Your task to perform on an android device: see sites visited before in the chrome app Image 0: 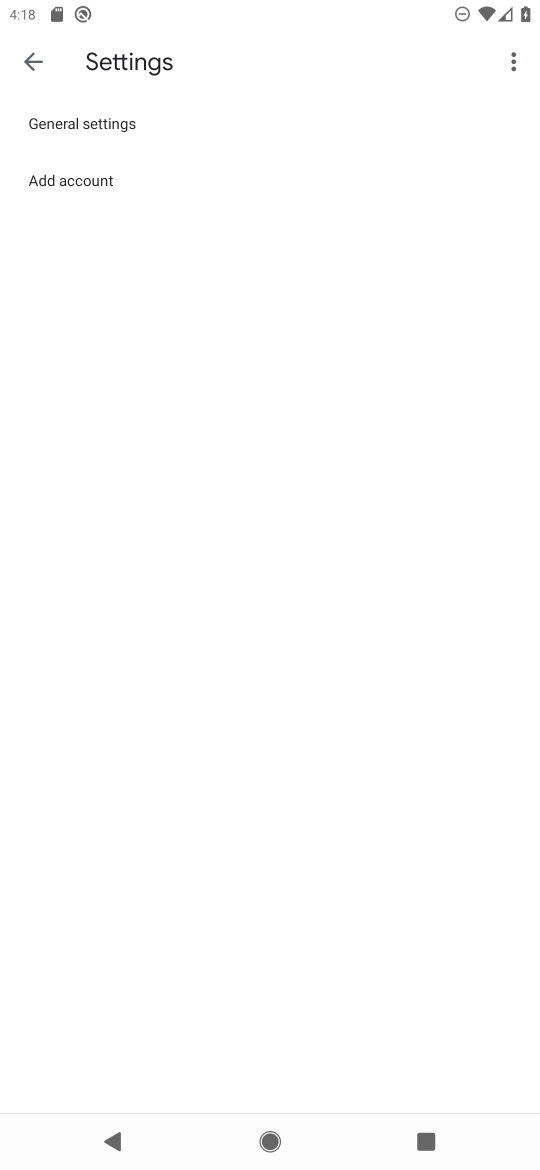
Step 0: press home button
Your task to perform on an android device: see sites visited before in the chrome app Image 1: 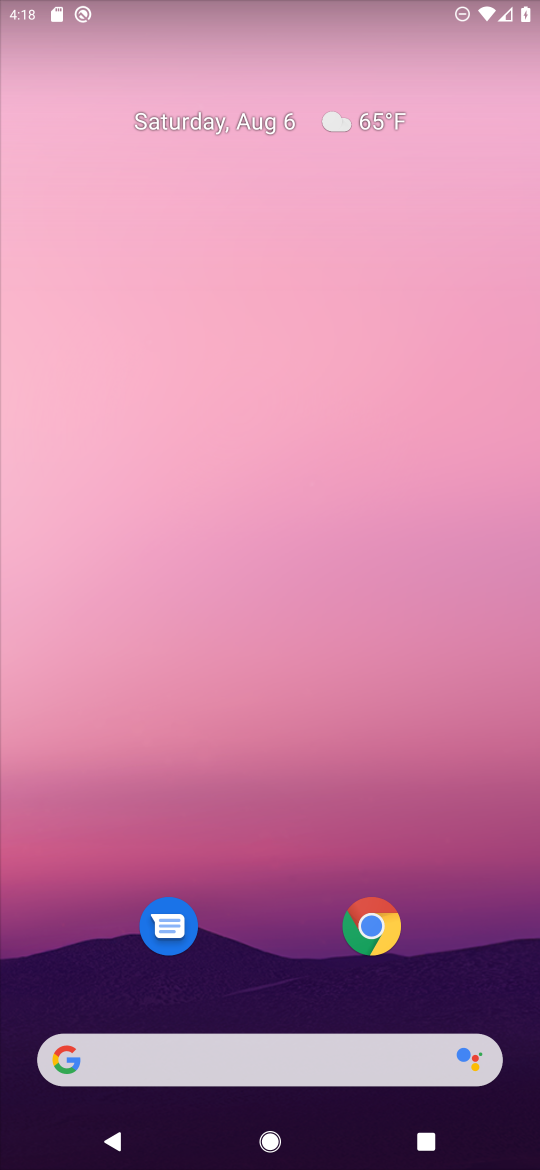
Step 1: click (361, 957)
Your task to perform on an android device: see sites visited before in the chrome app Image 2: 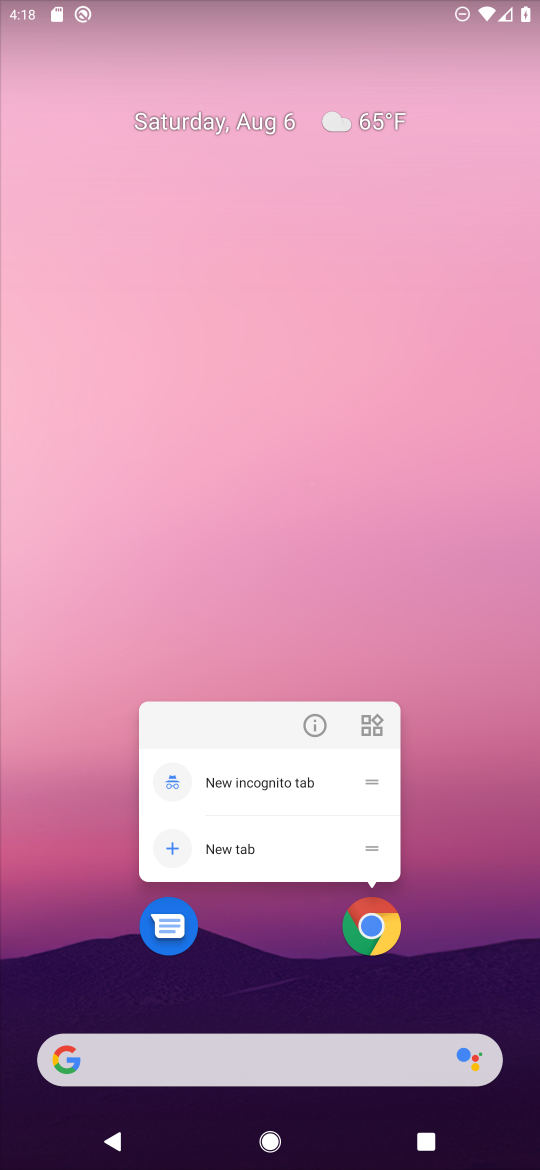
Step 2: click (361, 939)
Your task to perform on an android device: see sites visited before in the chrome app Image 3: 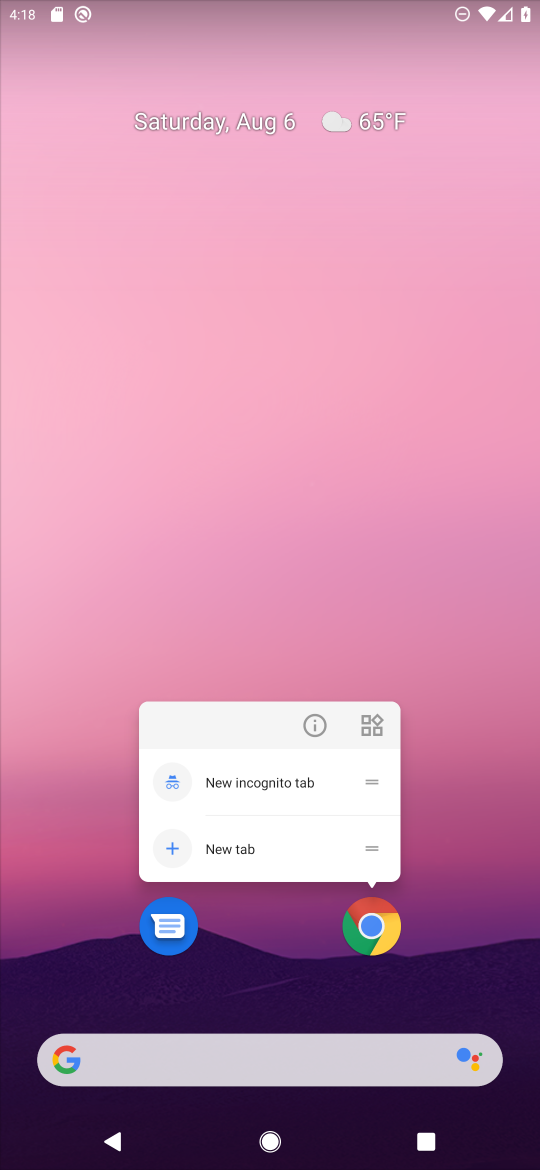
Step 3: click (373, 919)
Your task to perform on an android device: see sites visited before in the chrome app Image 4: 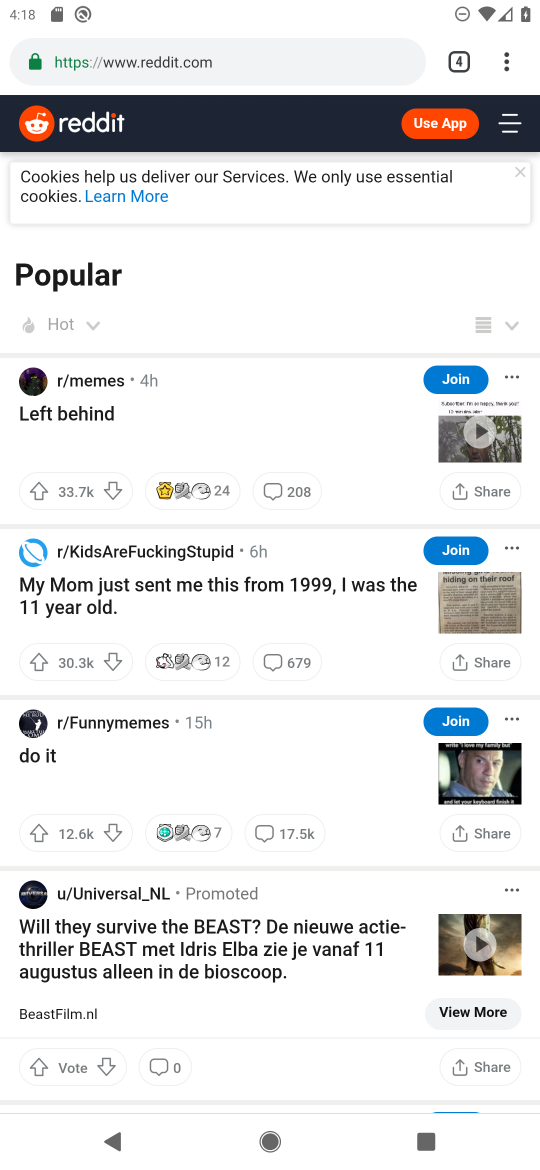
Step 4: click (502, 65)
Your task to perform on an android device: see sites visited before in the chrome app Image 5: 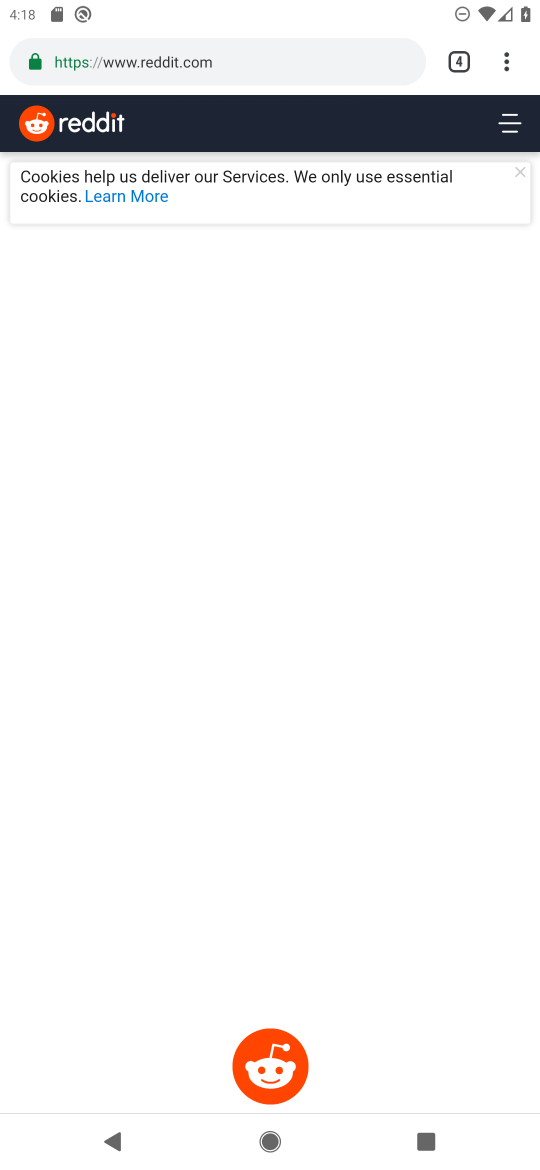
Step 5: click (502, 65)
Your task to perform on an android device: see sites visited before in the chrome app Image 6: 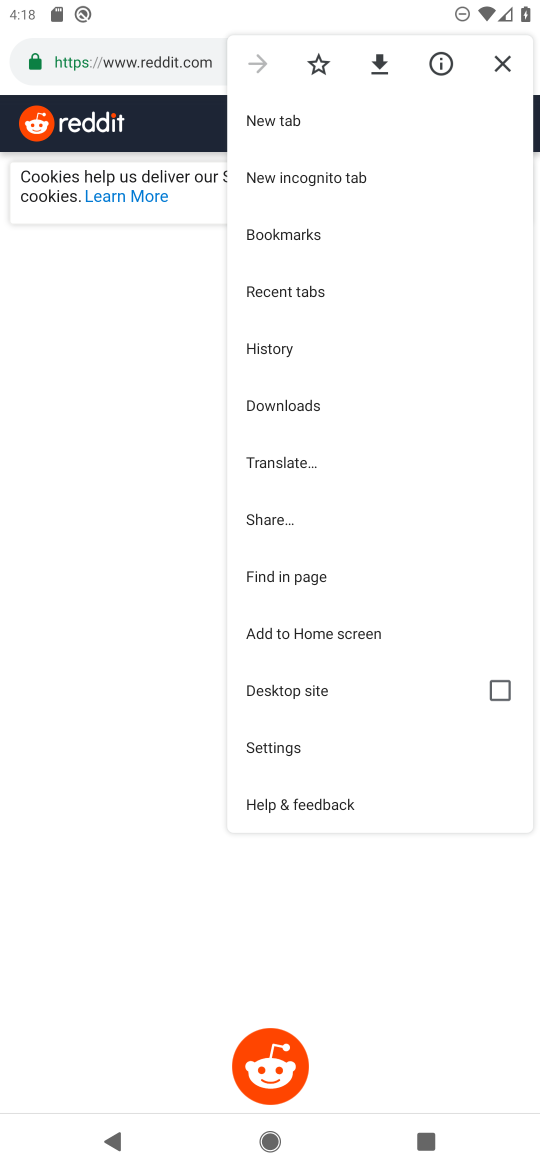
Step 6: click (343, 302)
Your task to perform on an android device: see sites visited before in the chrome app Image 7: 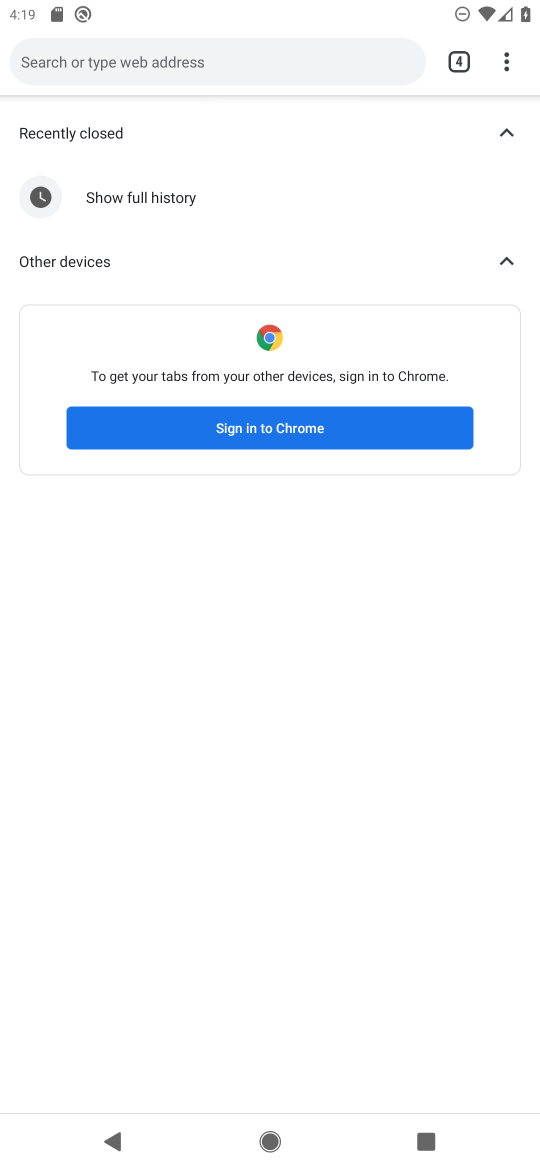
Step 7: task complete